Your task to perform on an android device: Search for "razer thresher" on target.com, select the first entry, and add it to the cart. Image 0: 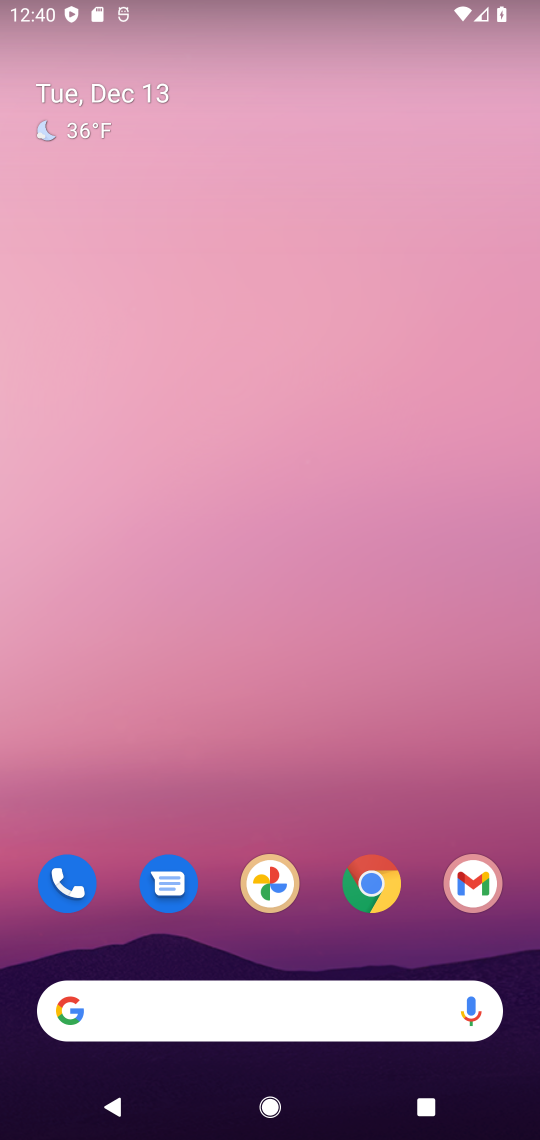
Step 0: press home button
Your task to perform on an android device: Search for "razer thresher" on target.com, select the first entry, and add it to the cart. Image 1: 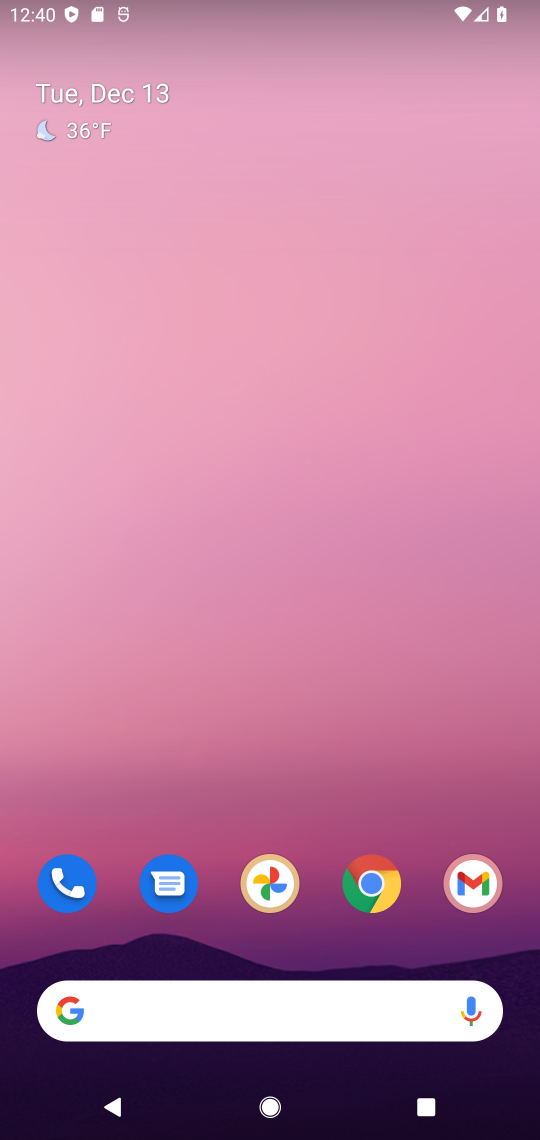
Step 1: click (256, 1006)
Your task to perform on an android device: Search for "razer thresher" on target.com, select the first entry, and add it to the cart. Image 2: 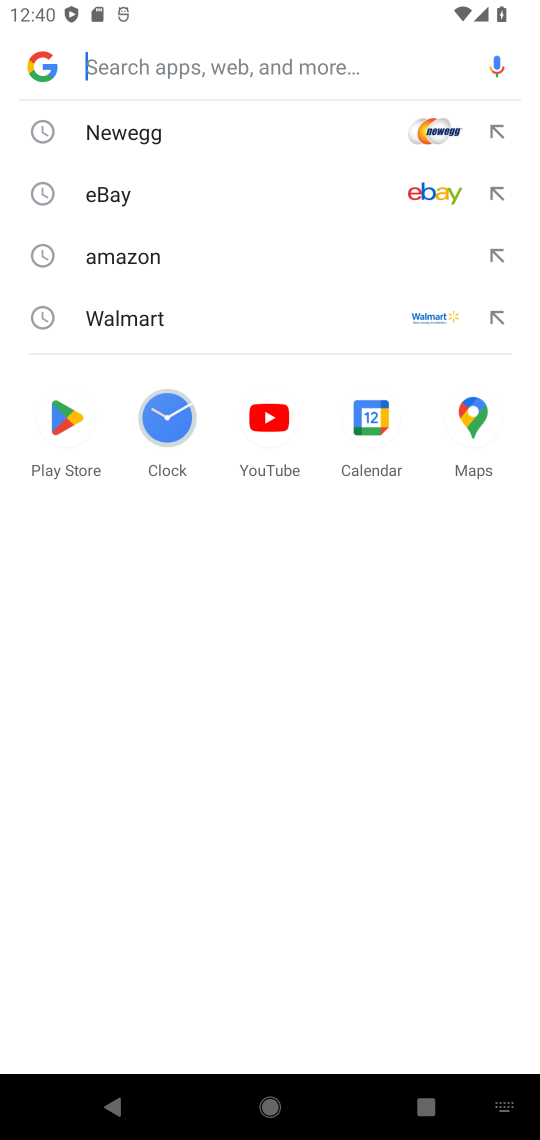
Step 2: type "target.com"
Your task to perform on an android device: Search for "razer thresher" on target.com, select the first entry, and add it to the cart. Image 3: 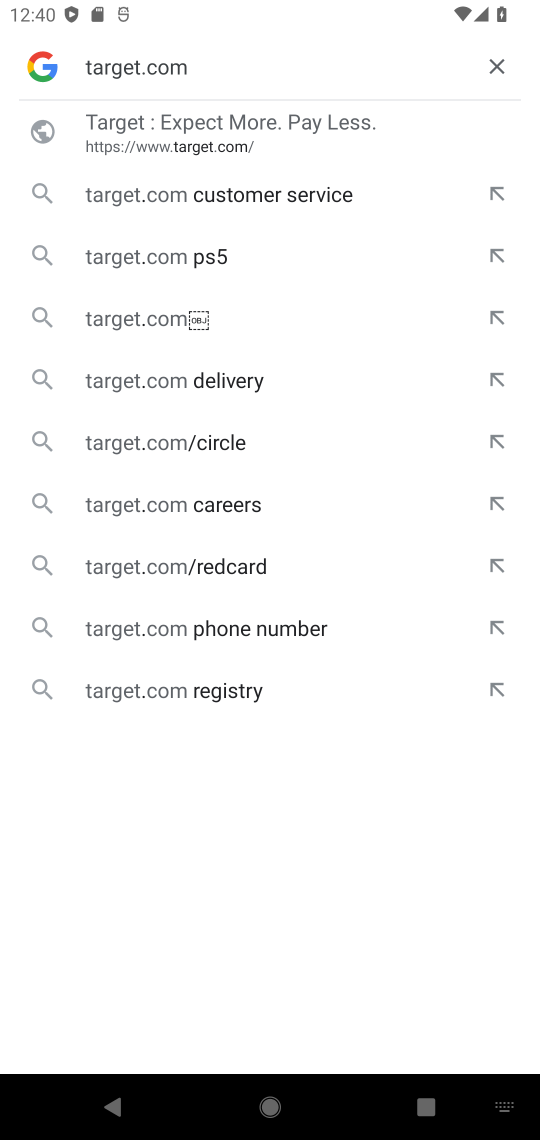
Step 3: click (138, 125)
Your task to perform on an android device: Search for "razer thresher" on target.com, select the first entry, and add it to the cart. Image 4: 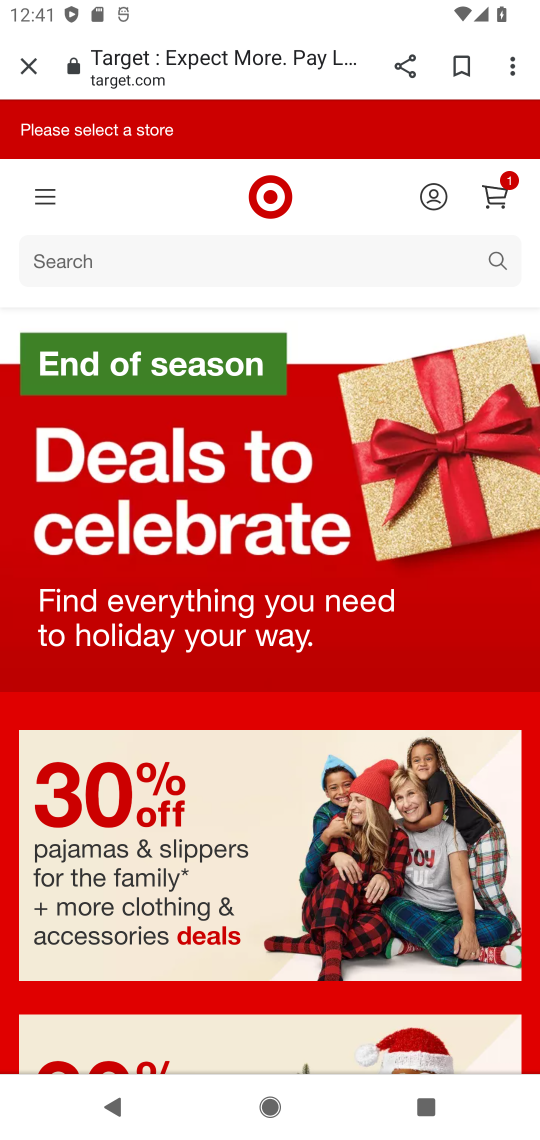
Step 4: click (207, 251)
Your task to perform on an android device: Search for "razer thresher" on target.com, select the first entry, and add it to the cart. Image 5: 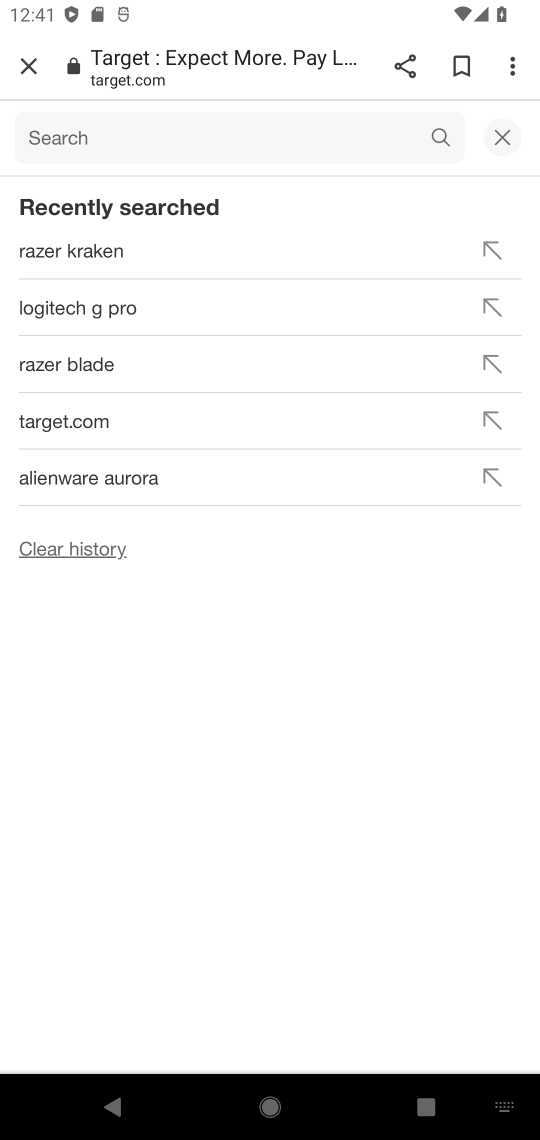
Step 5: type "razer thresher"
Your task to perform on an android device: Search for "razer thresher" on target.com, select the first entry, and add it to the cart. Image 6: 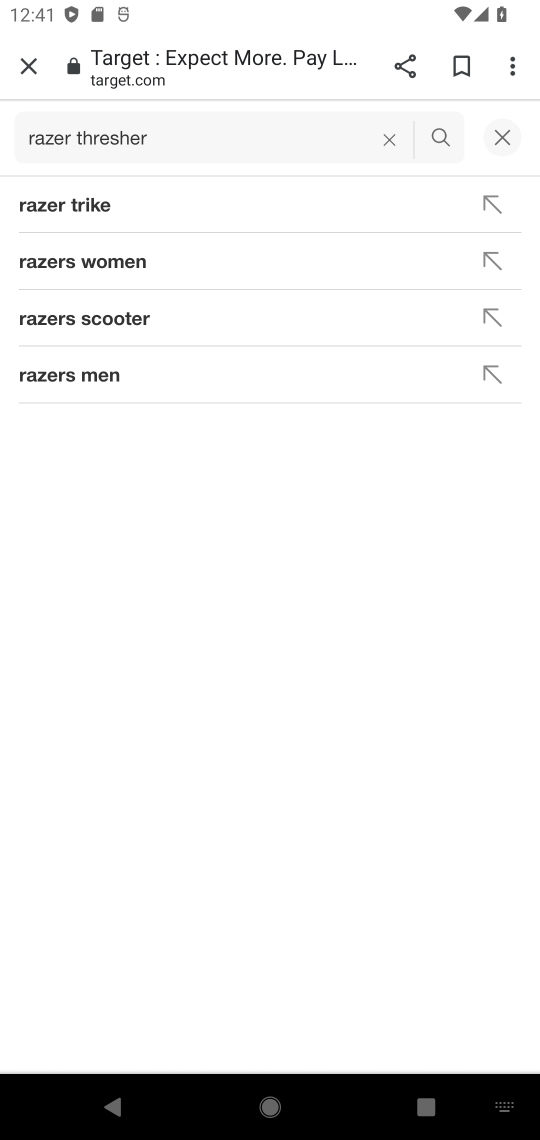
Step 6: click (431, 131)
Your task to perform on an android device: Search for "razer thresher" on target.com, select the first entry, and add it to the cart. Image 7: 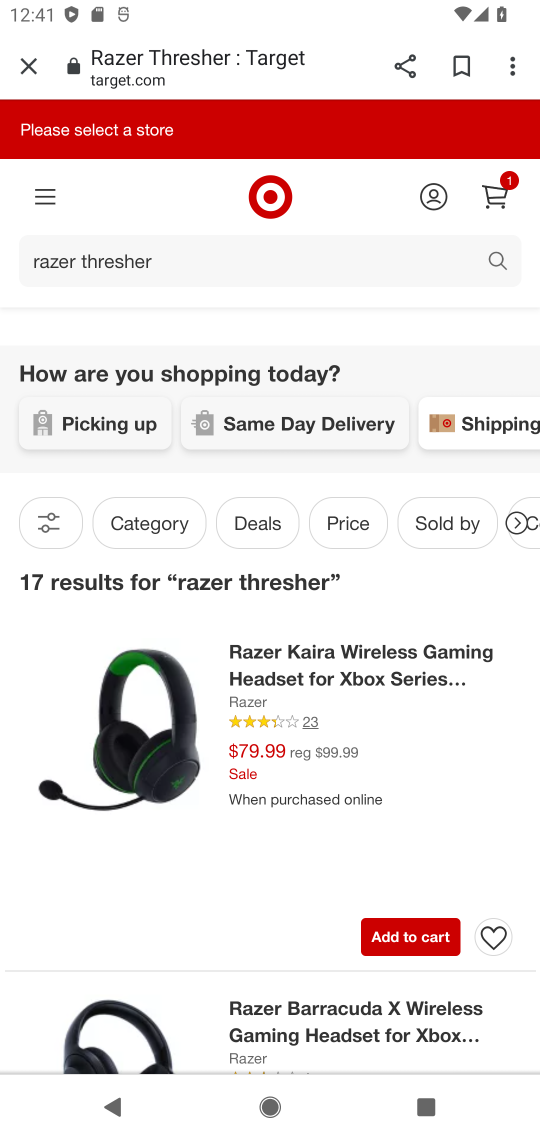
Step 7: click (430, 927)
Your task to perform on an android device: Search for "razer thresher" on target.com, select the first entry, and add it to the cart. Image 8: 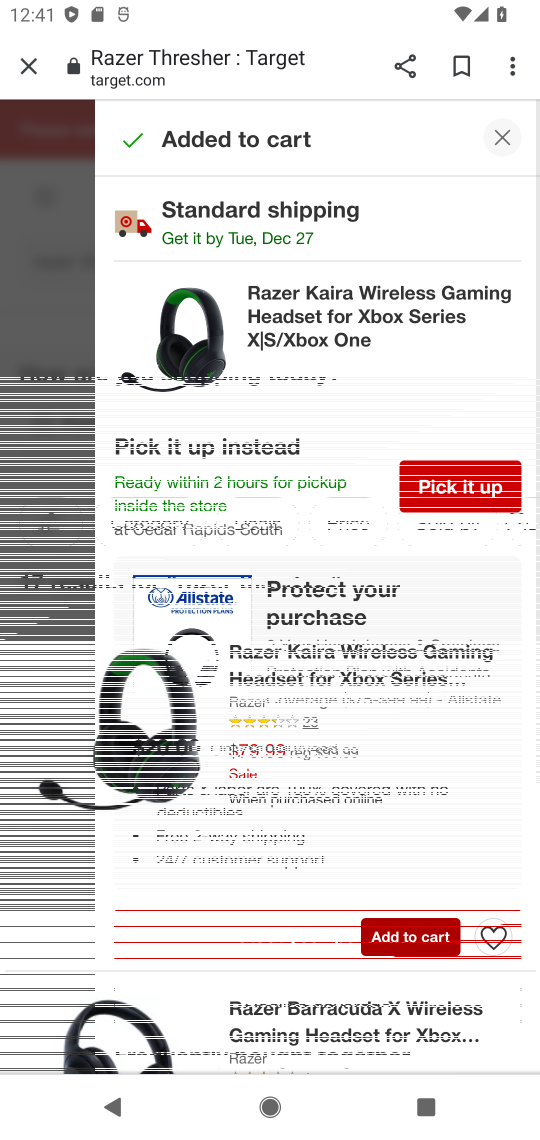
Step 8: click (494, 139)
Your task to perform on an android device: Search for "razer thresher" on target.com, select the first entry, and add it to the cart. Image 9: 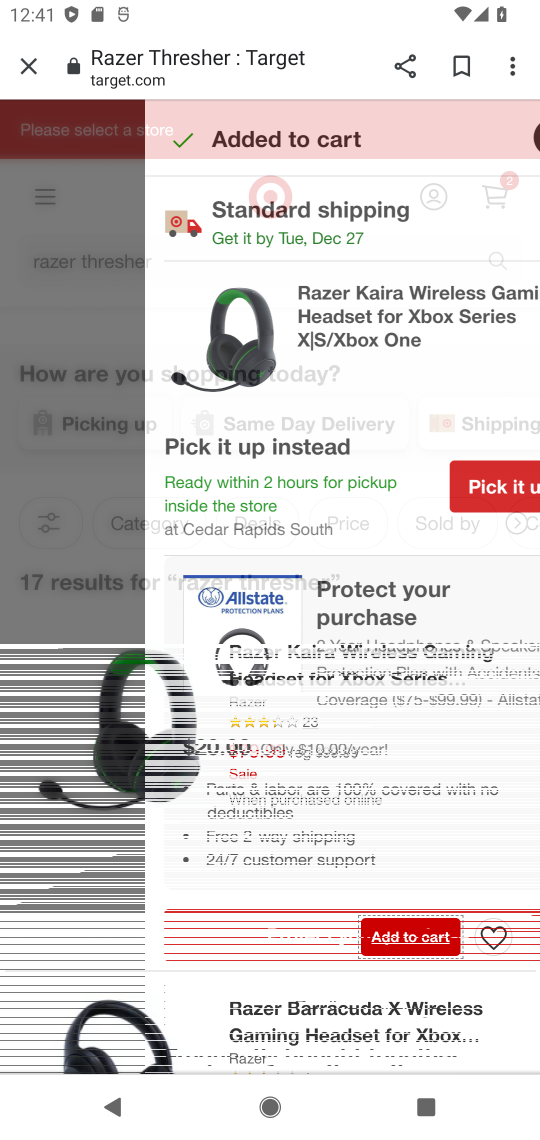
Step 9: task complete